Your task to perform on an android device: Go to Amazon Image 0: 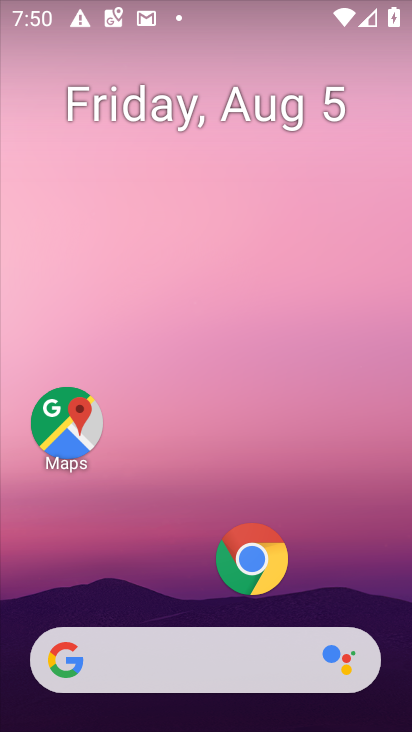
Step 0: click (250, 570)
Your task to perform on an android device: Go to Amazon Image 1: 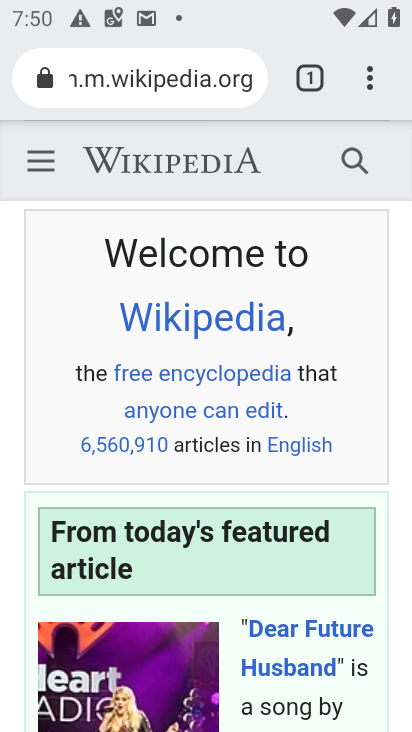
Step 1: click (175, 94)
Your task to perform on an android device: Go to Amazon Image 2: 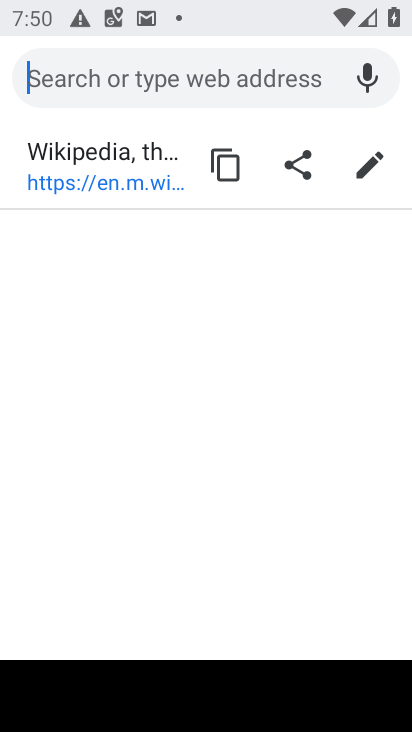
Step 2: type "Amazon"
Your task to perform on an android device: Go to Amazon Image 3: 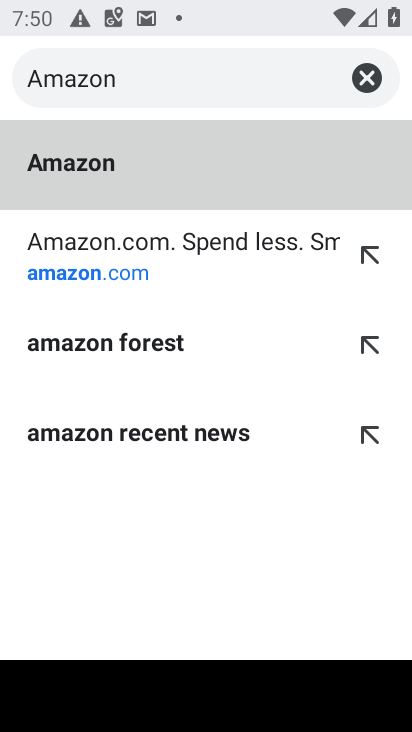
Step 3: click (96, 254)
Your task to perform on an android device: Go to Amazon Image 4: 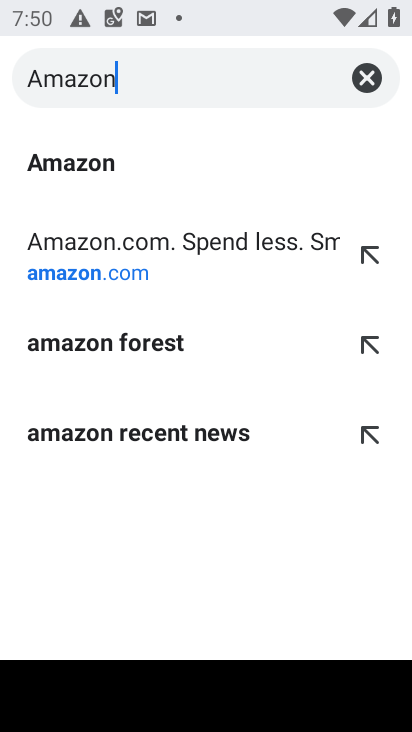
Step 4: click (98, 263)
Your task to perform on an android device: Go to Amazon Image 5: 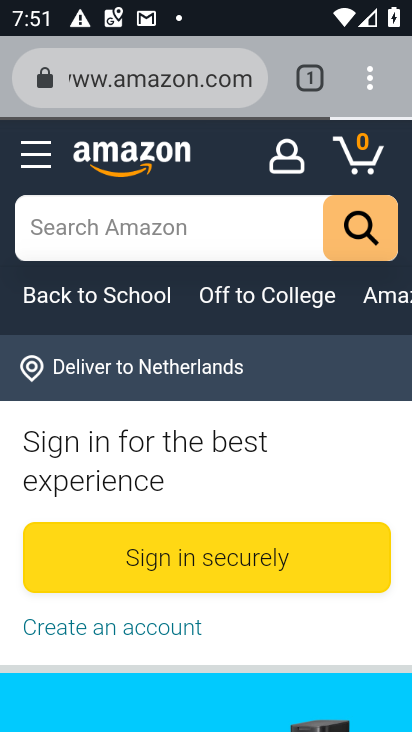
Step 5: task complete